Your task to perform on an android device: read, delete, or share a saved page in the chrome app Image 0: 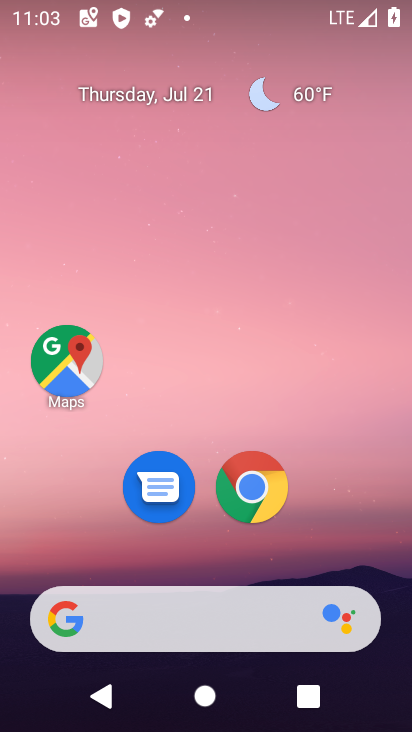
Step 0: click (238, 477)
Your task to perform on an android device: read, delete, or share a saved page in the chrome app Image 1: 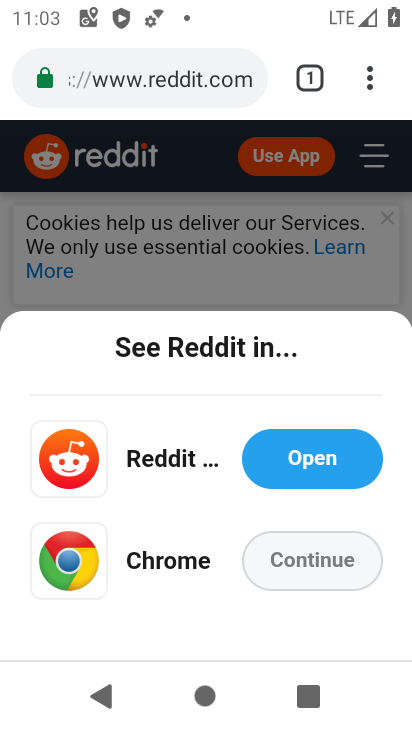
Step 1: drag from (377, 82) to (99, 503)
Your task to perform on an android device: read, delete, or share a saved page in the chrome app Image 2: 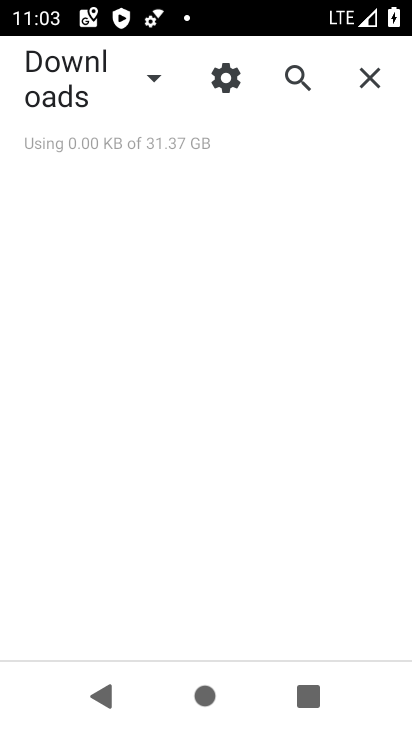
Step 2: click (156, 77)
Your task to perform on an android device: read, delete, or share a saved page in the chrome app Image 3: 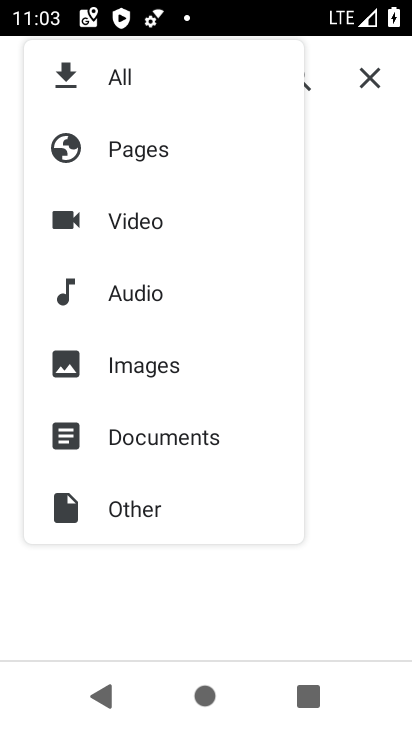
Step 3: click (161, 159)
Your task to perform on an android device: read, delete, or share a saved page in the chrome app Image 4: 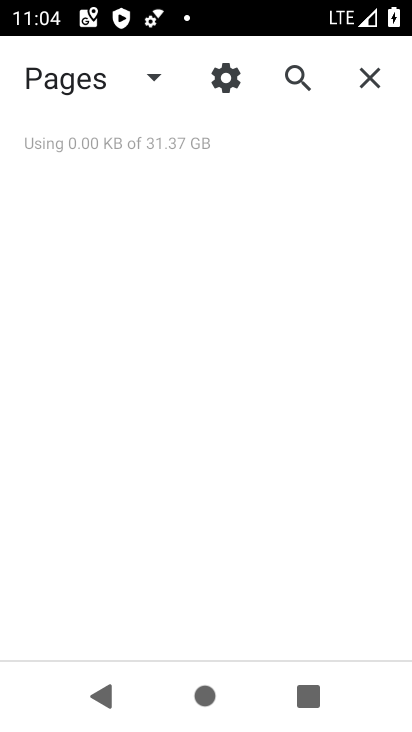
Step 4: task complete